Your task to perform on an android device: Search for vegetarian restaurants on Maps Image 0: 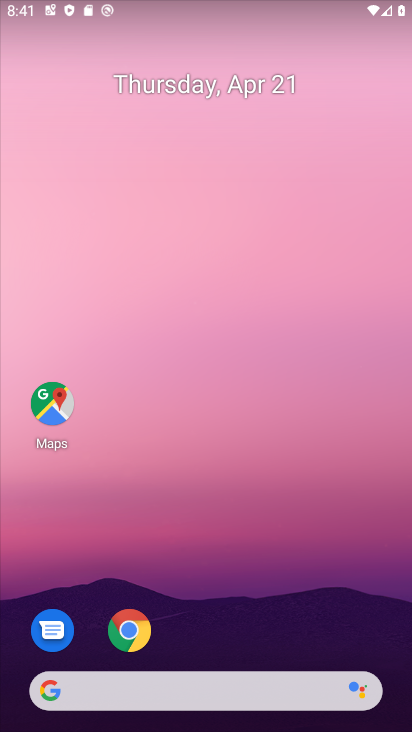
Step 0: click (47, 404)
Your task to perform on an android device: Search for vegetarian restaurants on Maps Image 1: 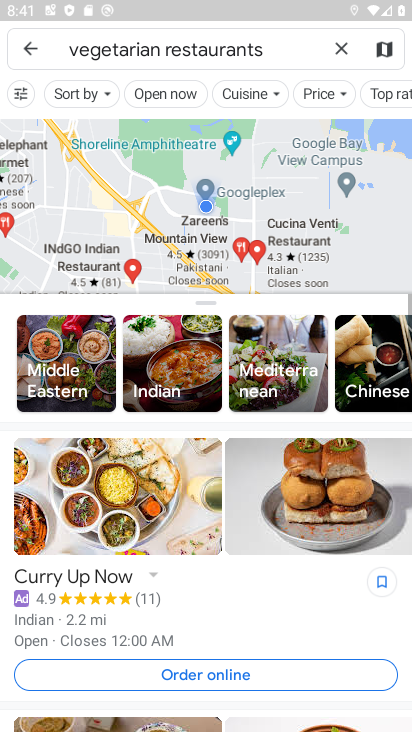
Step 1: task complete